Your task to perform on an android device: What's the weather going to be this weekend? Image 0: 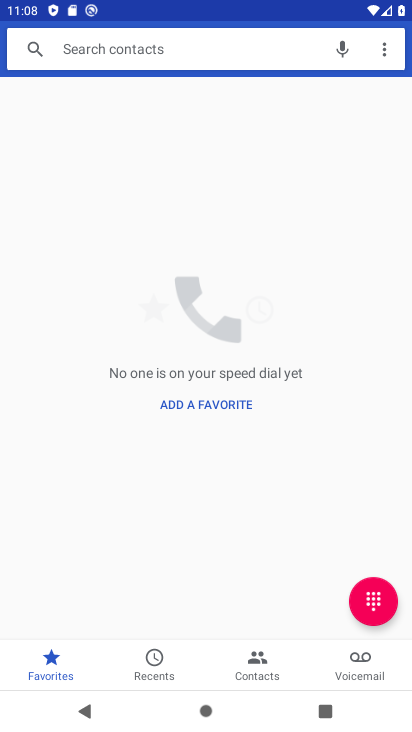
Step 0: press home button
Your task to perform on an android device: What's the weather going to be this weekend? Image 1: 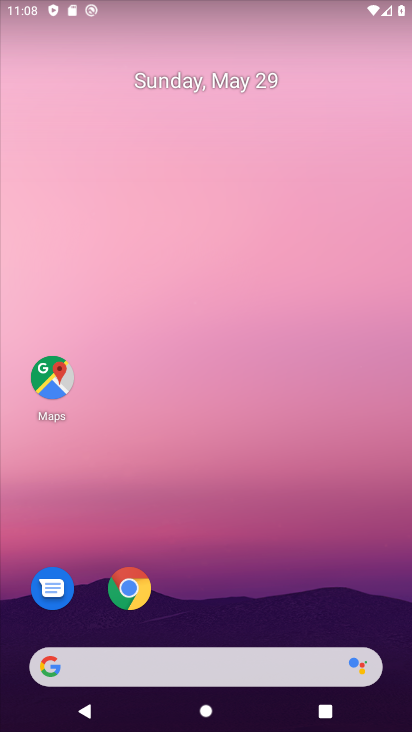
Step 1: drag from (11, 447) to (237, 401)
Your task to perform on an android device: What's the weather going to be this weekend? Image 2: 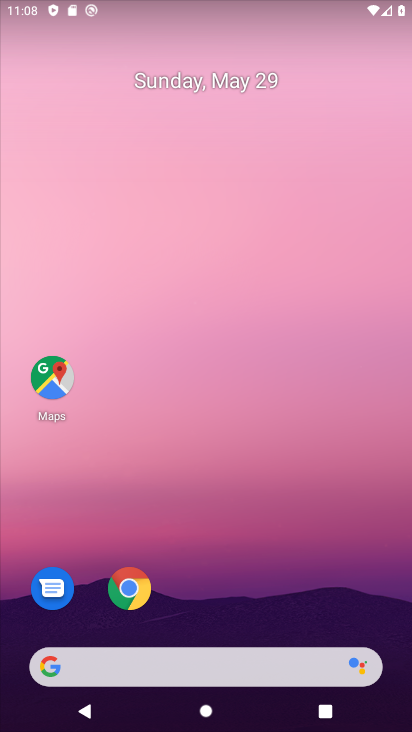
Step 2: drag from (2, 487) to (388, 362)
Your task to perform on an android device: What's the weather going to be this weekend? Image 3: 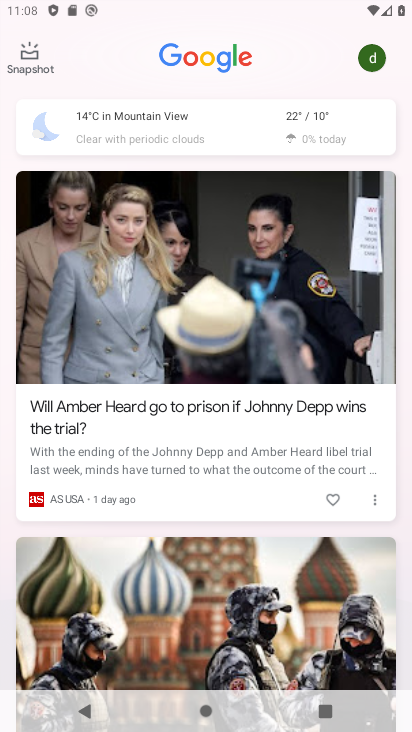
Step 3: click (260, 128)
Your task to perform on an android device: What's the weather going to be this weekend? Image 4: 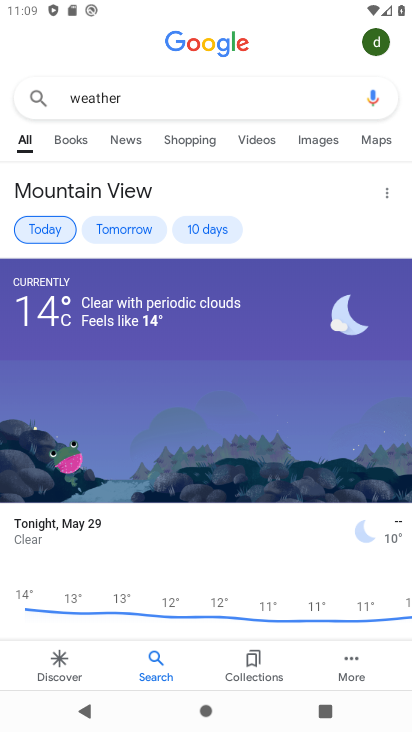
Step 4: click (211, 220)
Your task to perform on an android device: What's the weather going to be this weekend? Image 5: 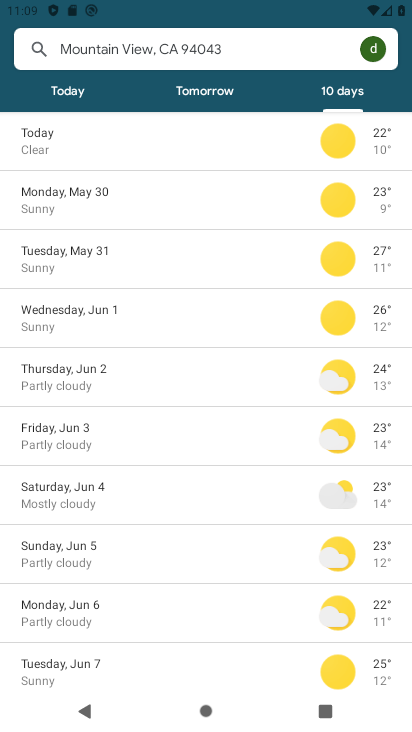
Step 5: task complete